Your task to perform on an android device: Go to Amazon Image 0: 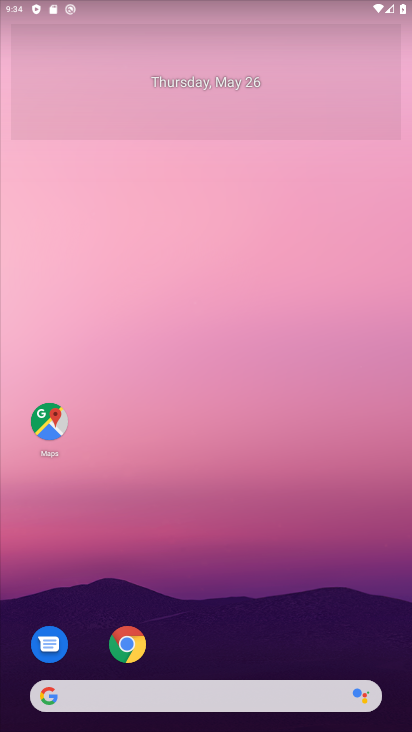
Step 0: drag from (201, 394) to (167, 122)
Your task to perform on an android device: Go to Amazon Image 1: 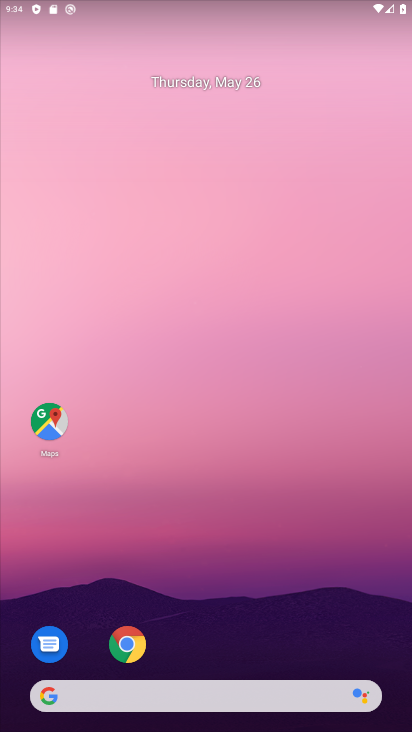
Step 1: drag from (278, 691) to (178, 0)
Your task to perform on an android device: Go to Amazon Image 2: 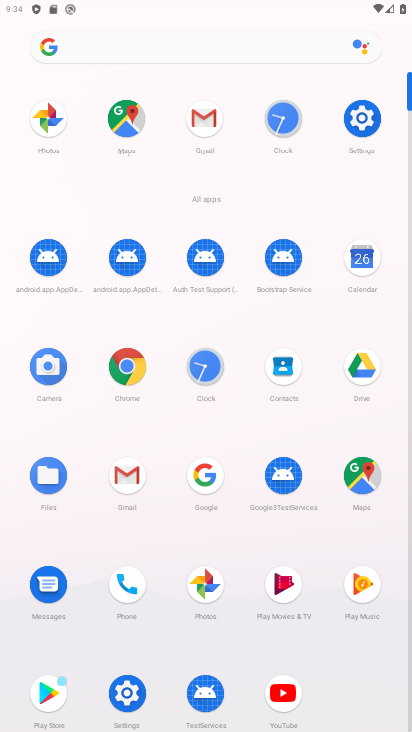
Step 2: drag from (293, 550) to (221, 132)
Your task to perform on an android device: Go to Amazon Image 3: 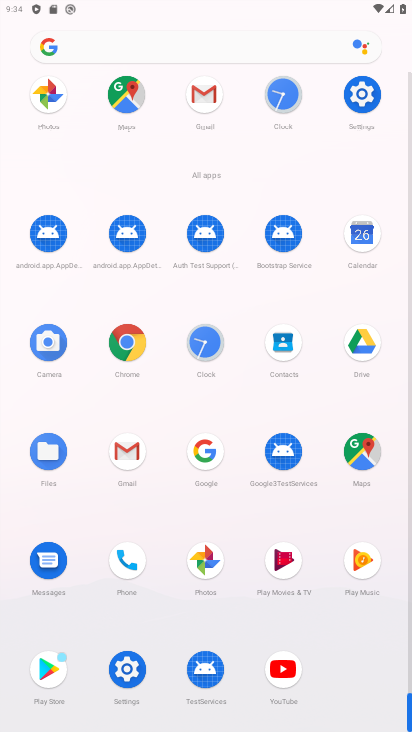
Step 3: click (118, 346)
Your task to perform on an android device: Go to Amazon Image 4: 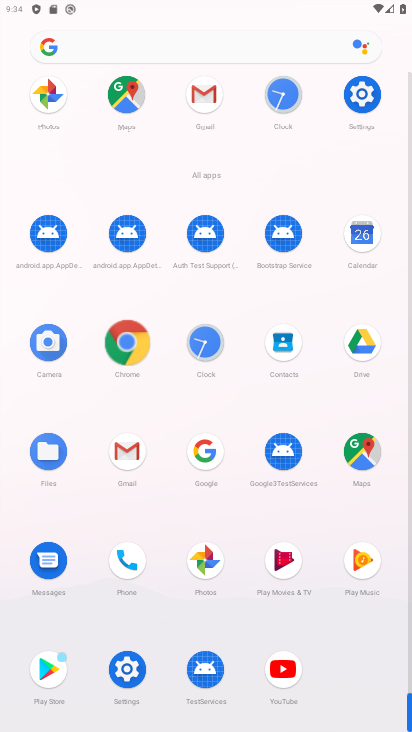
Step 4: click (120, 346)
Your task to perform on an android device: Go to Amazon Image 5: 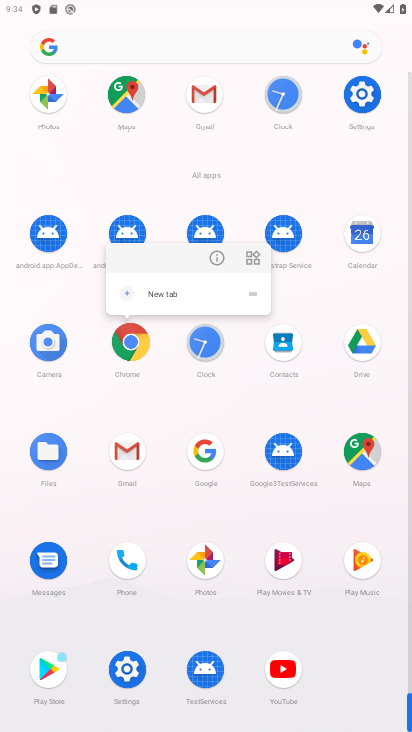
Step 5: click (133, 340)
Your task to perform on an android device: Go to Amazon Image 6: 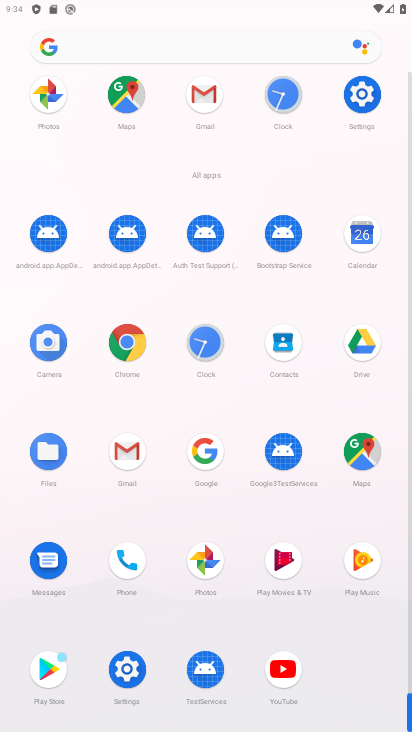
Step 6: click (209, 258)
Your task to perform on an android device: Go to Amazon Image 7: 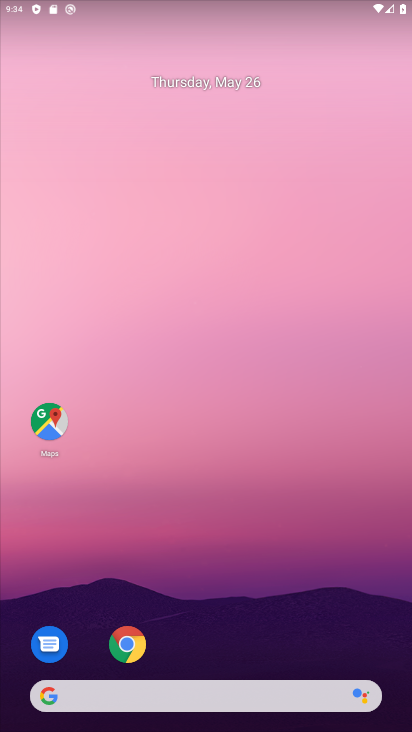
Step 7: drag from (247, 682) to (180, 98)
Your task to perform on an android device: Go to Amazon Image 8: 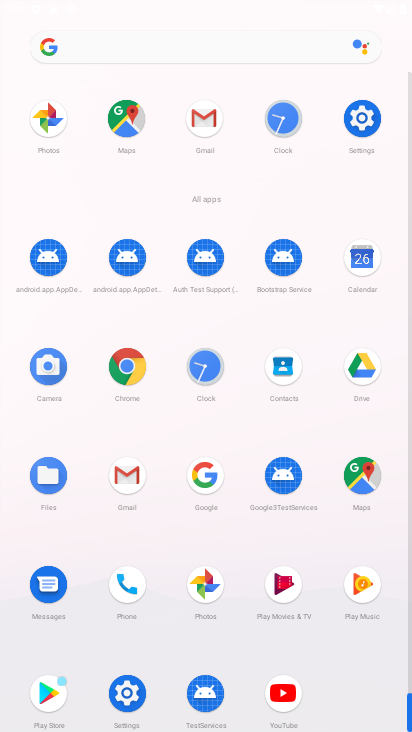
Step 8: click (129, 367)
Your task to perform on an android device: Go to Amazon Image 9: 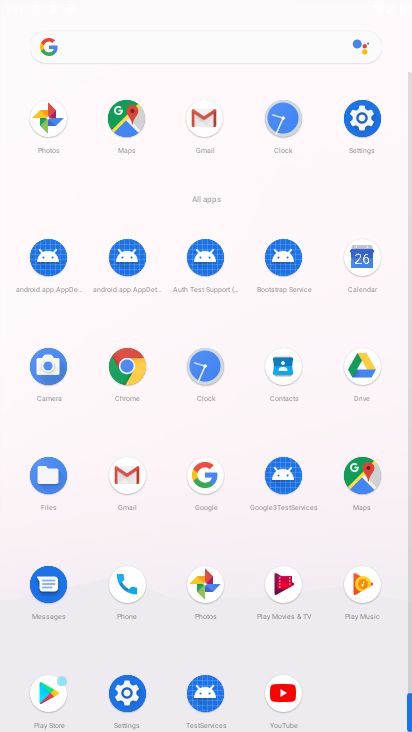
Step 9: click (128, 366)
Your task to perform on an android device: Go to Amazon Image 10: 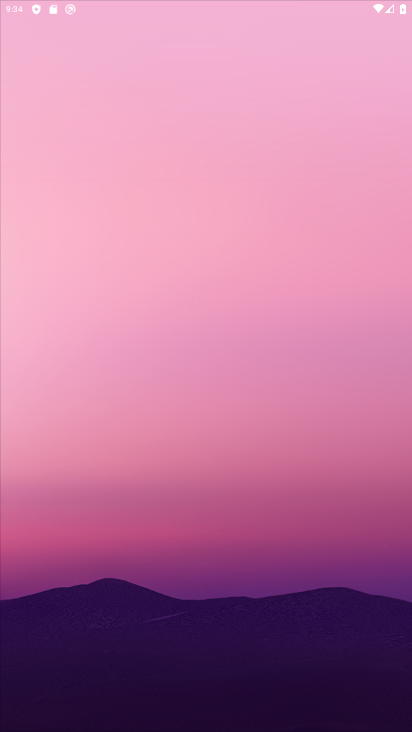
Step 10: click (115, 357)
Your task to perform on an android device: Go to Amazon Image 11: 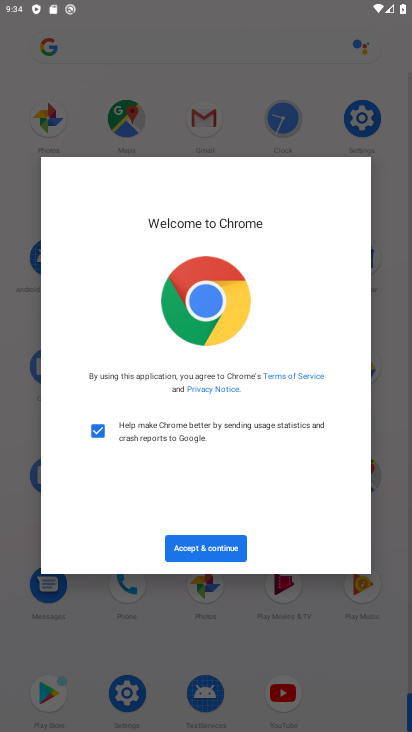
Step 11: click (220, 538)
Your task to perform on an android device: Go to Amazon Image 12: 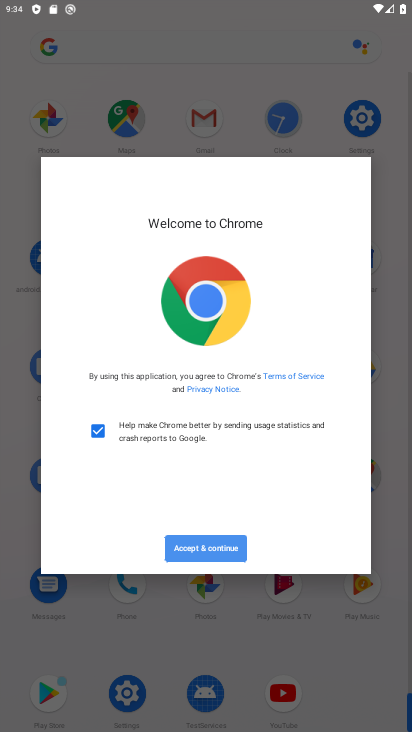
Step 12: click (219, 539)
Your task to perform on an android device: Go to Amazon Image 13: 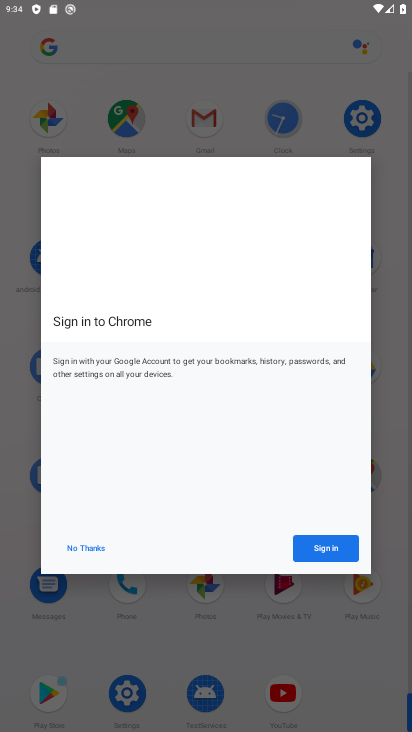
Step 13: click (238, 558)
Your task to perform on an android device: Go to Amazon Image 14: 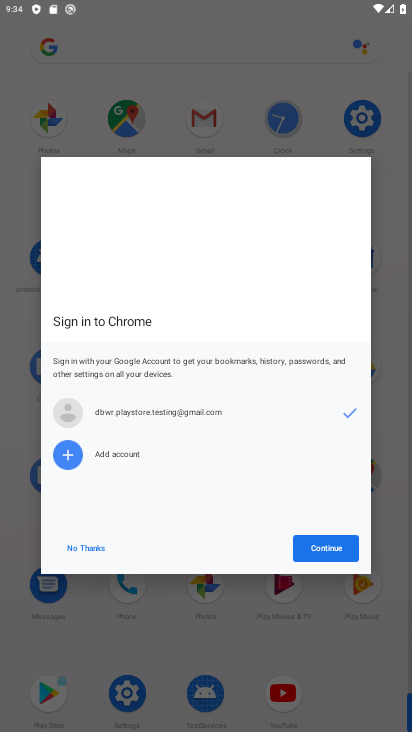
Step 14: click (235, 553)
Your task to perform on an android device: Go to Amazon Image 15: 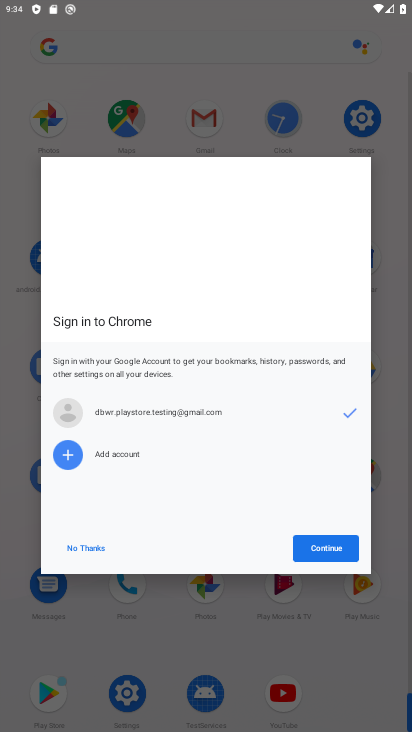
Step 15: click (344, 545)
Your task to perform on an android device: Go to Amazon Image 16: 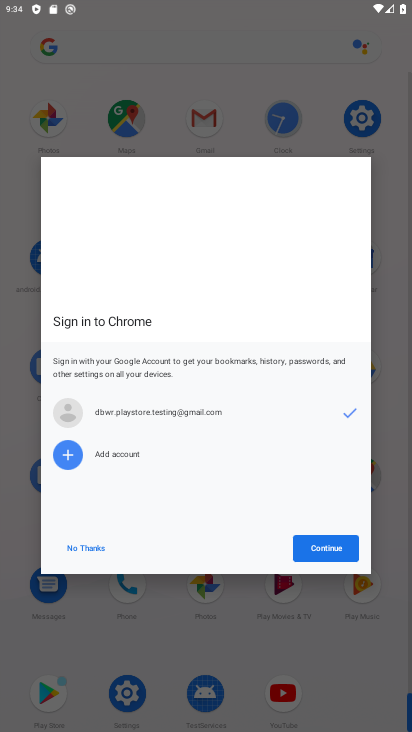
Step 16: click (344, 545)
Your task to perform on an android device: Go to Amazon Image 17: 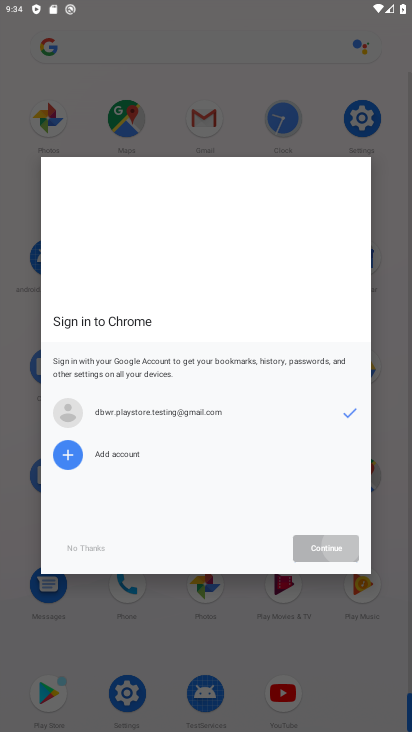
Step 17: click (347, 540)
Your task to perform on an android device: Go to Amazon Image 18: 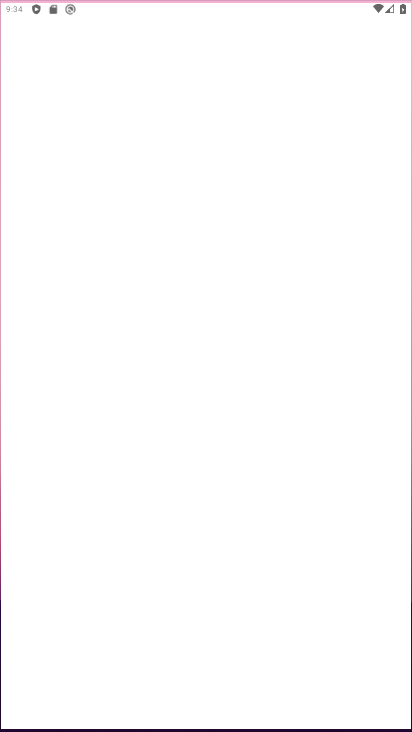
Step 18: click (341, 542)
Your task to perform on an android device: Go to Amazon Image 19: 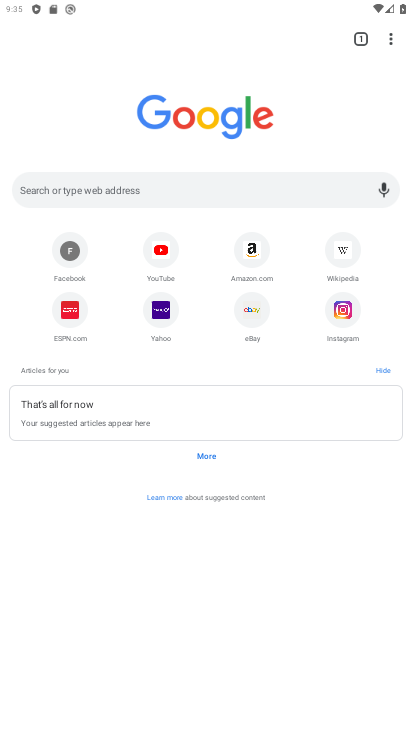
Step 19: click (253, 247)
Your task to perform on an android device: Go to Amazon Image 20: 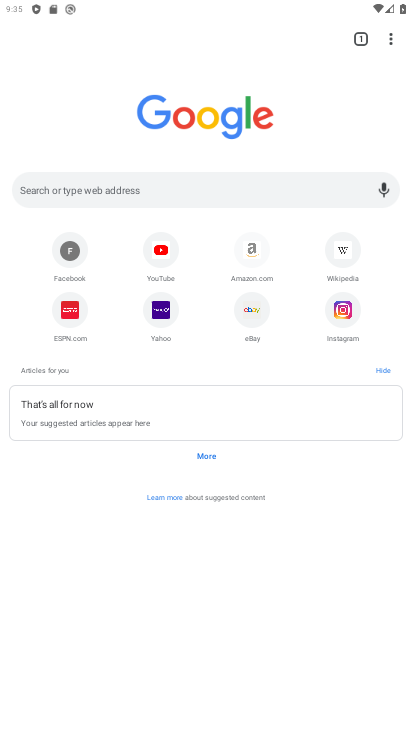
Step 20: click (253, 247)
Your task to perform on an android device: Go to Amazon Image 21: 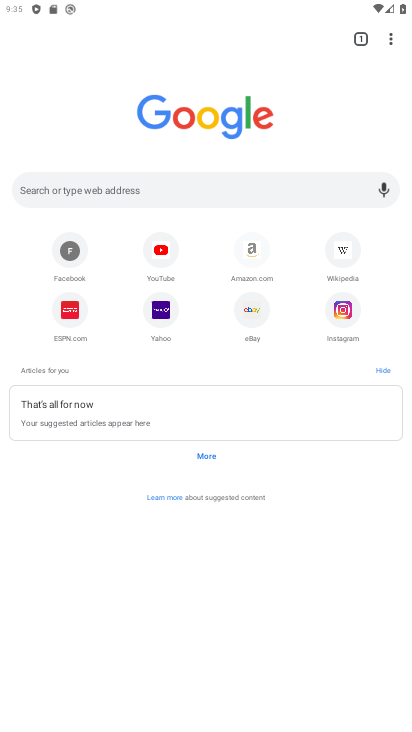
Step 21: click (254, 246)
Your task to perform on an android device: Go to Amazon Image 22: 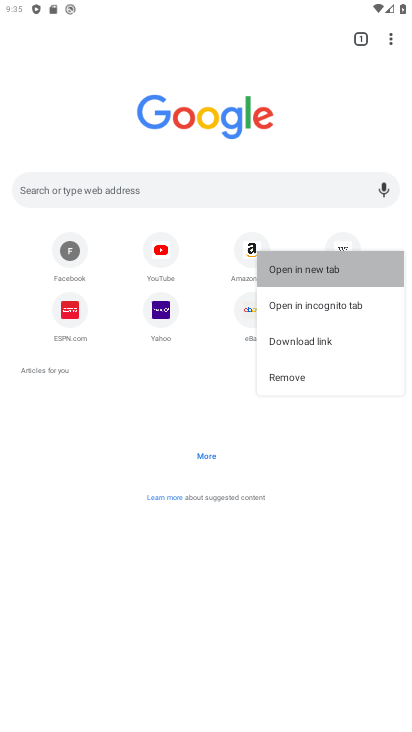
Step 22: click (254, 246)
Your task to perform on an android device: Go to Amazon Image 23: 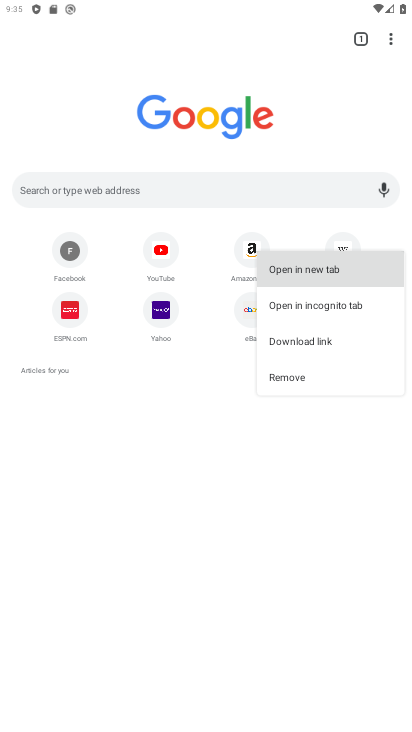
Step 23: click (254, 246)
Your task to perform on an android device: Go to Amazon Image 24: 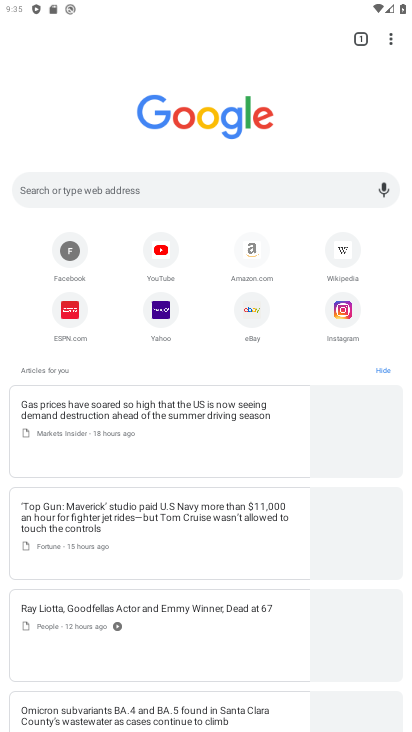
Step 24: click (256, 246)
Your task to perform on an android device: Go to Amazon Image 25: 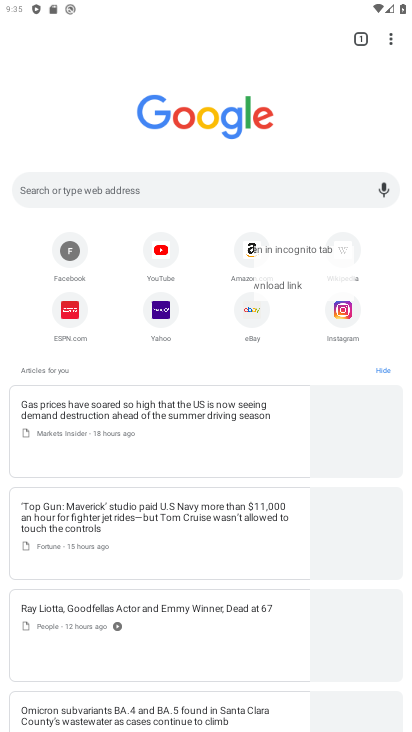
Step 25: click (257, 245)
Your task to perform on an android device: Go to Amazon Image 26: 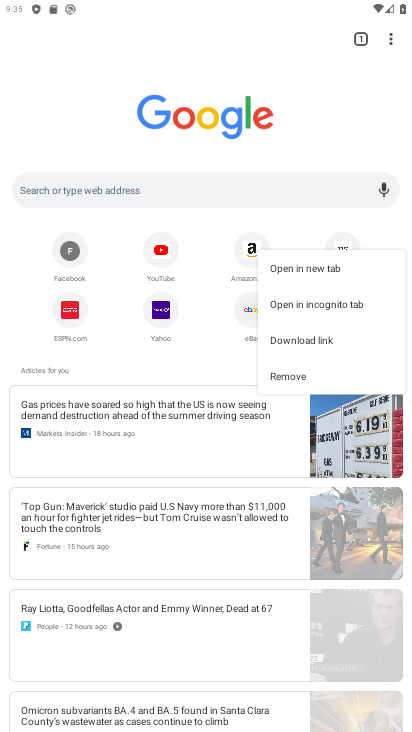
Step 26: click (257, 245)
Your task to perform on an android device: Go to Amazon Image 27: 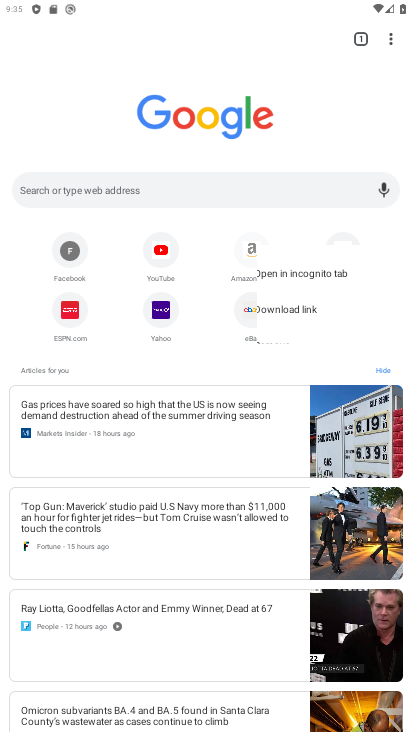
Step 27: click (258, 244)
Your task to perform on an android device: Go to Amazon Image 28: 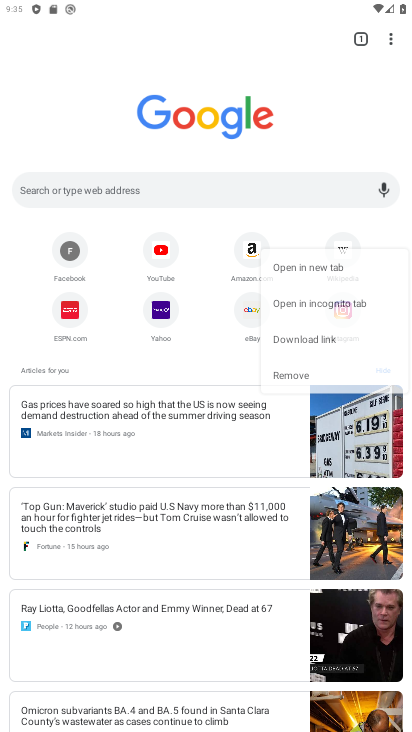
Step 28: click (258, 244)
Your task to perform on an android device: Go to Amazon Image 29: 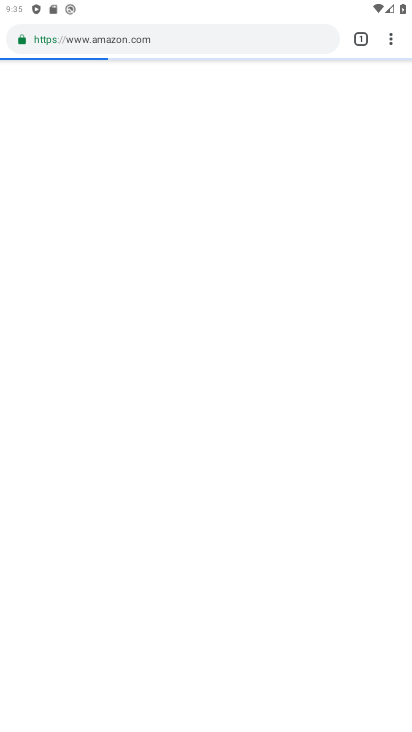
Step 29: click (253, 245)
Your task to perform on an android device: Go to Amazon Image 30: 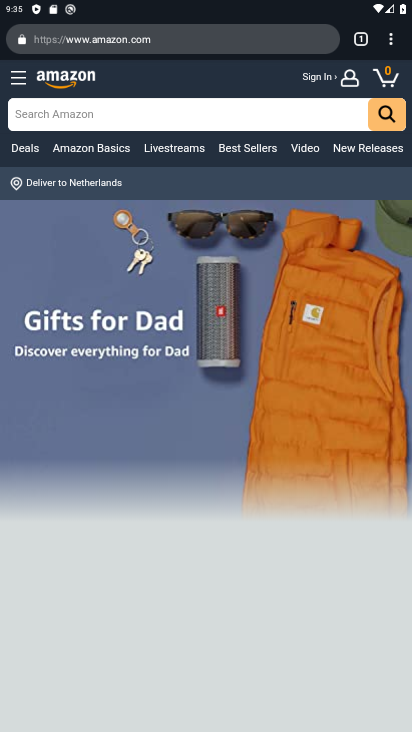
Step 30: task complete